Your task to perform on an android device: What is the recent news? Image 0: 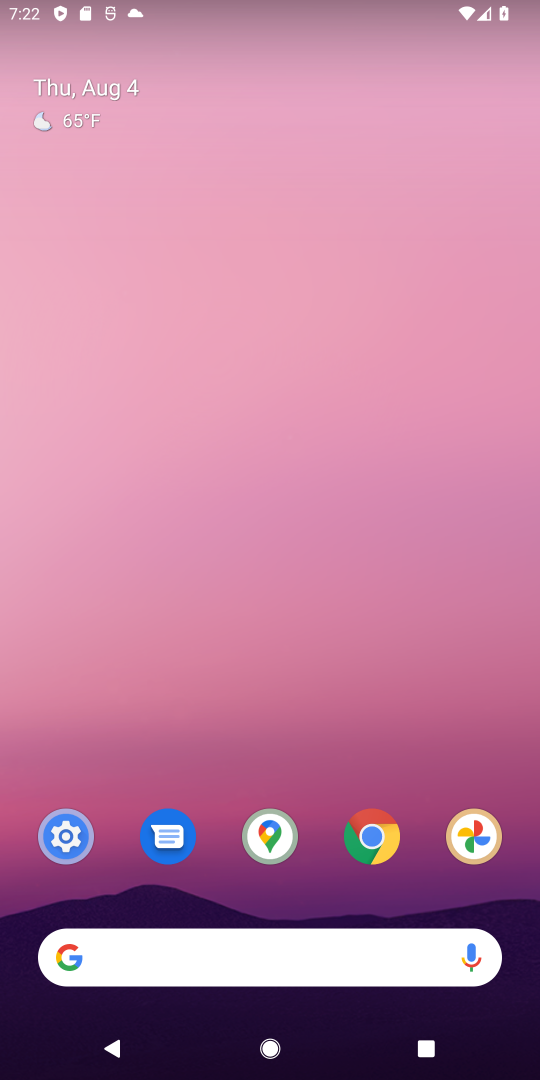
Step 0: click (223, 955)
Your task to perform on an android device: What is the recent news? Image 1: 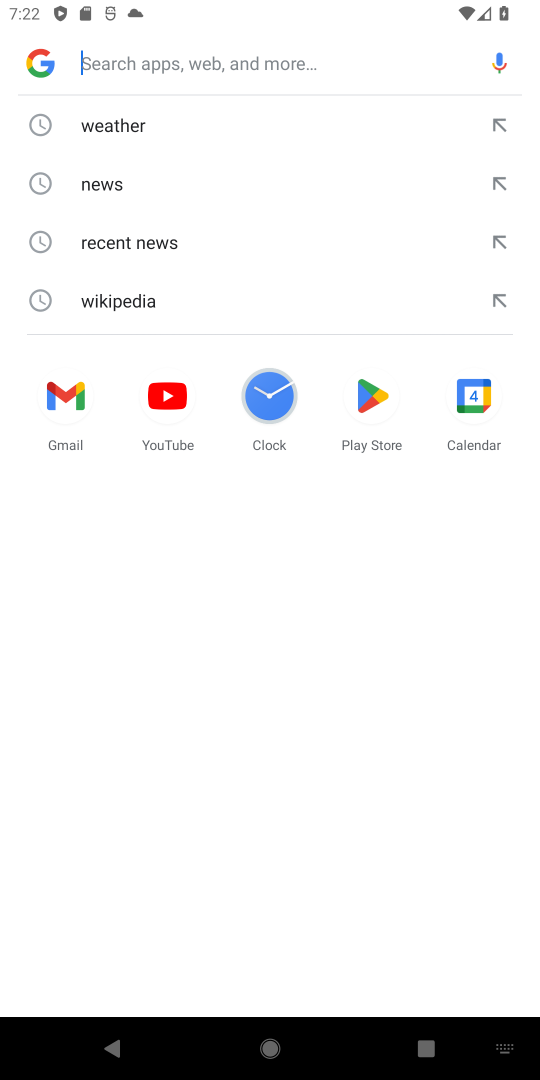
Step 1: click (134, 236)
Your task to perform on an android device: What is the recent news? Image 2: 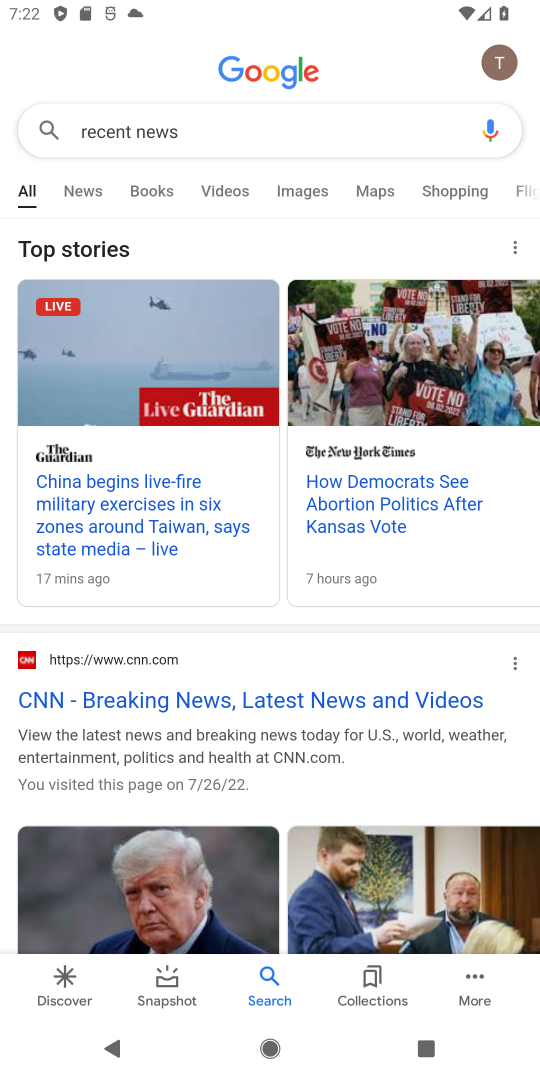
Step 2: task complete